Your task to perform on an android device: Turn on the flashlight Image 0: 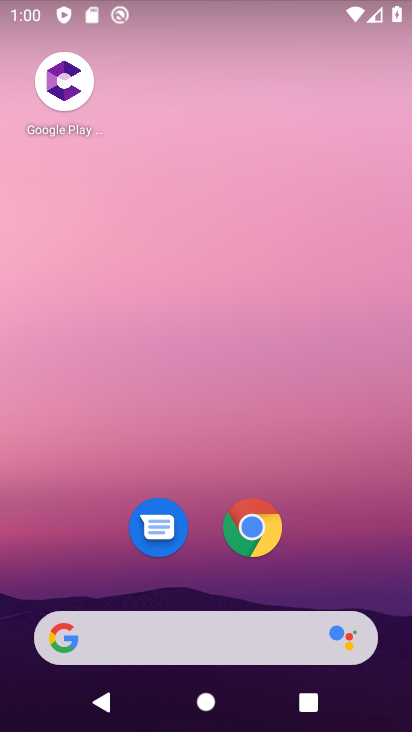
Step 0: drag from (140, 569) to (241, 98)
Your task to perform on an android device: Turn on the flashlight Image 1: 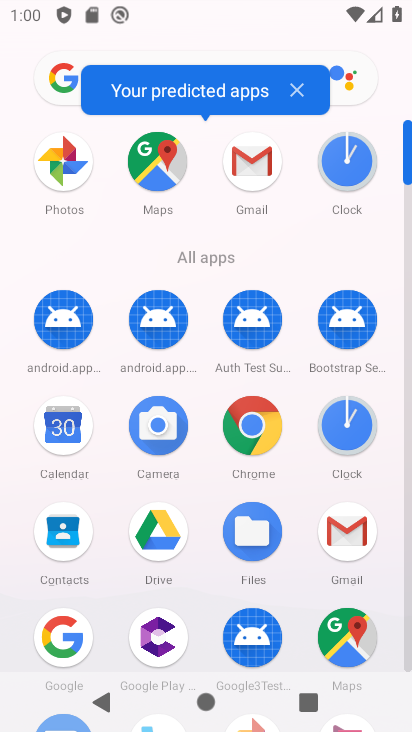
Step 1: drag from (113, 617) to (117, 226)
Your task to perform on an android device: Turn on the flashlight Image 2: 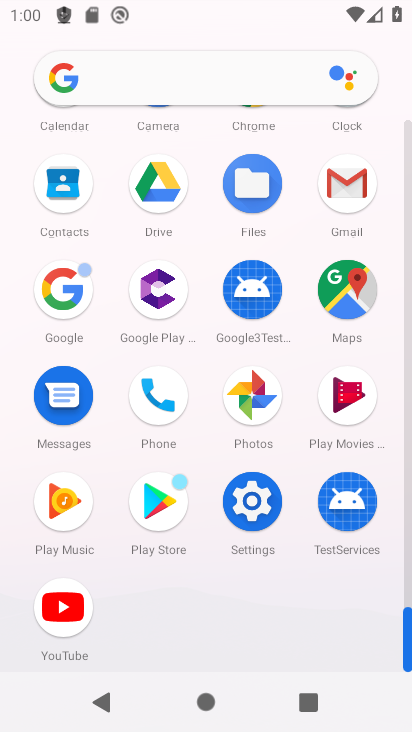
Step 2: click (238, 509)
Your task to perform on an android device: Turn on the flashlight Image 3: 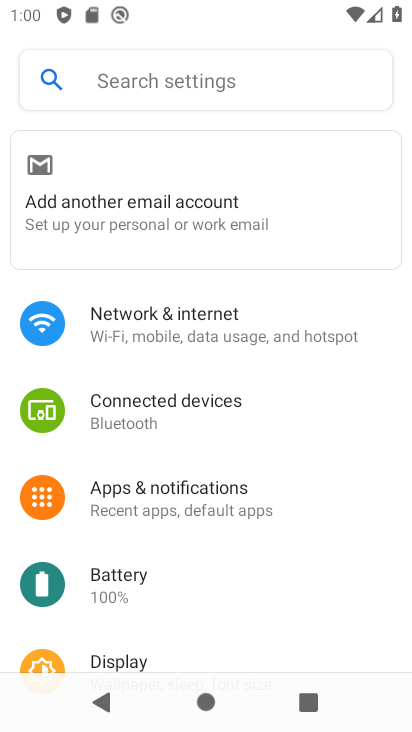
Step 3: click (238, 509)
Your task to perform on an android device: Turn on the flashlight Image 4: 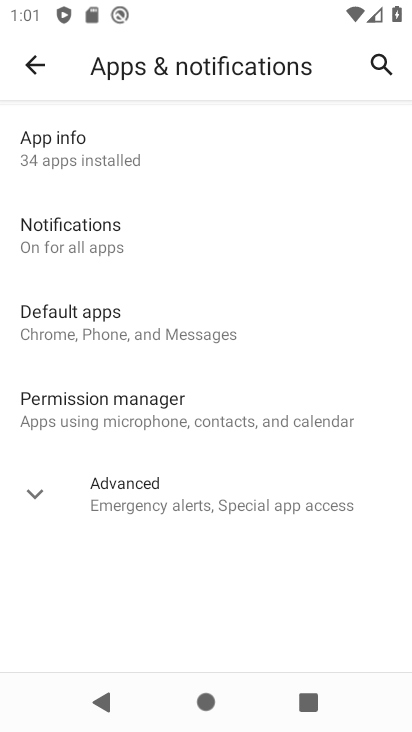
Step 4: task complete